Your task to perform on an android device: See recent photos Image 0: 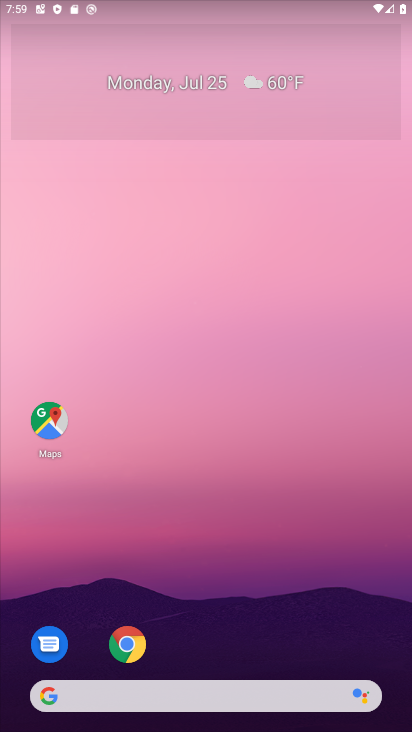
Step 0: drag from (257, 582) to (239, 175)
Your task to perform on an android device: See recent photos Image 1: 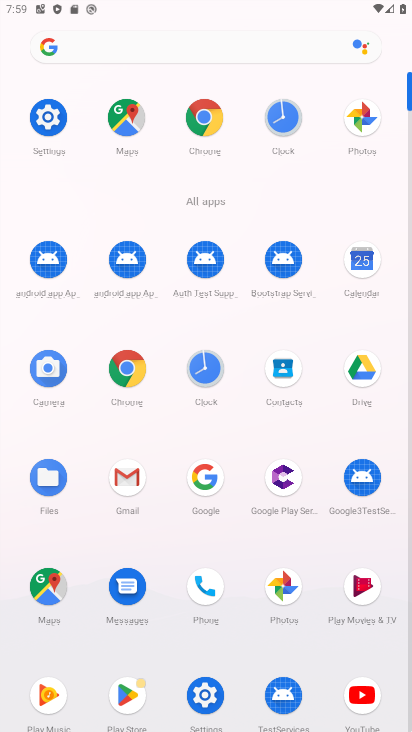
Step 1: click (283, 589)
Your task to perform on an android device: See recent photos Image 2: 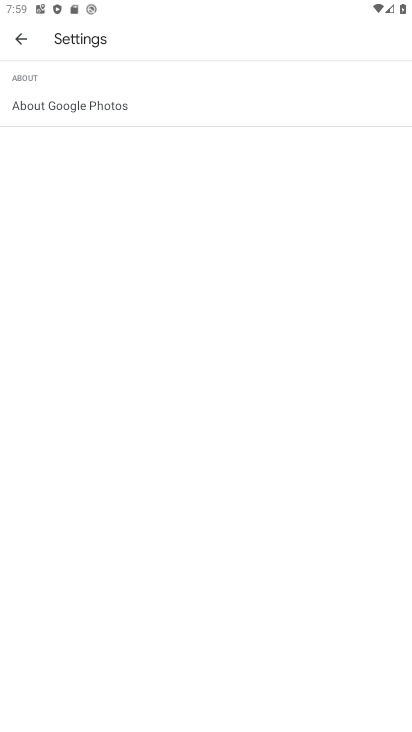
Step 2: task complete